Your task to perform on an android device: empty trash in google photos Image 0: 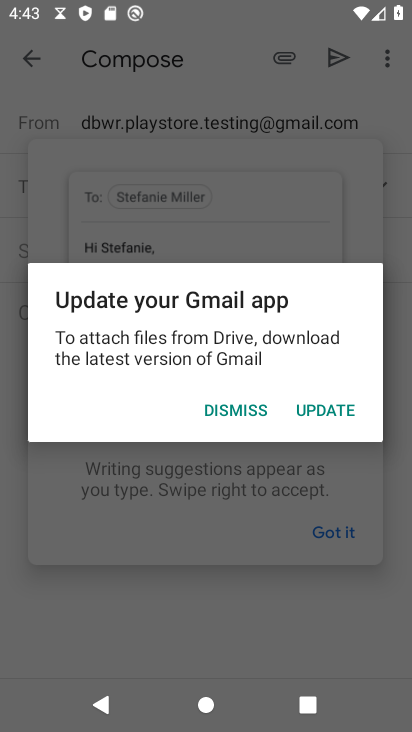
Step 0: press back button
Your task to perform on an android device: empty trash in google photos Image 1: 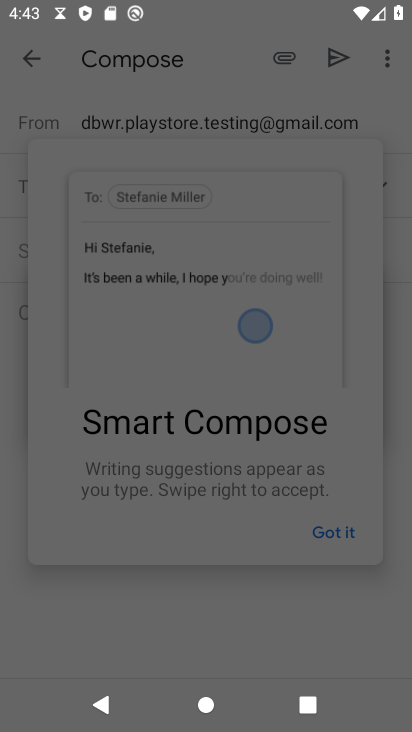
Step 1: press home button
Your task to perform on an android device: empty trash in google photos Image 2: 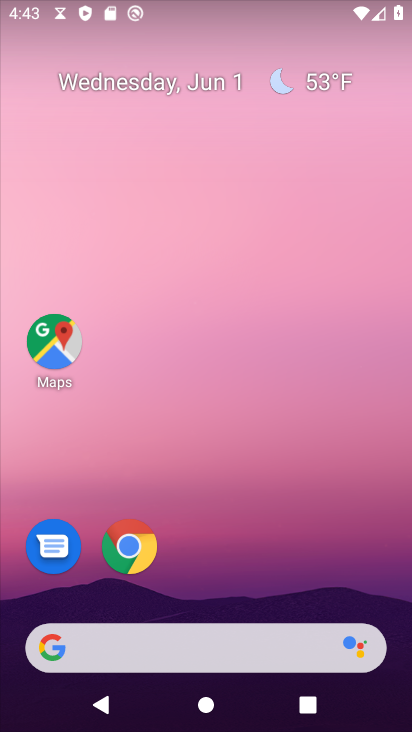
Step 2: drag from (241, 574) to (190, 25)
Your task to perform on an android device: empty trash in google photos Image 3: 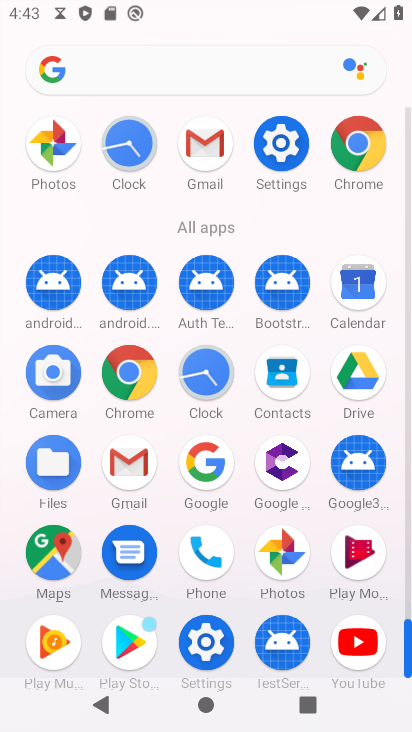
Step 3: drag from (0, 608) to (21, 241)
Your task to perform on an android device: empty trash in google photos Image 4: 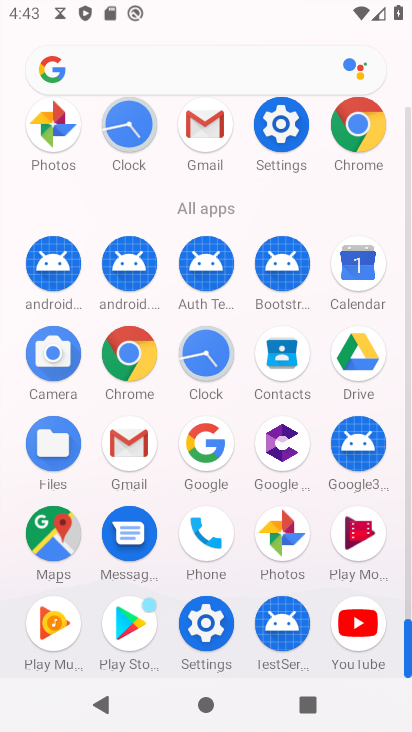
Step 4: click (281, 530)
Your task to perform on an android device: empty trash in google photos Image 5: 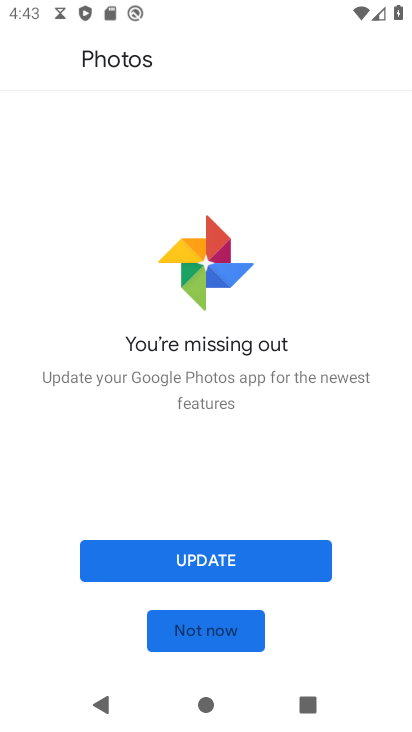
Step 5: click (245, 565)
Your task to perform on an android device: empty trash in google photos Image 6: 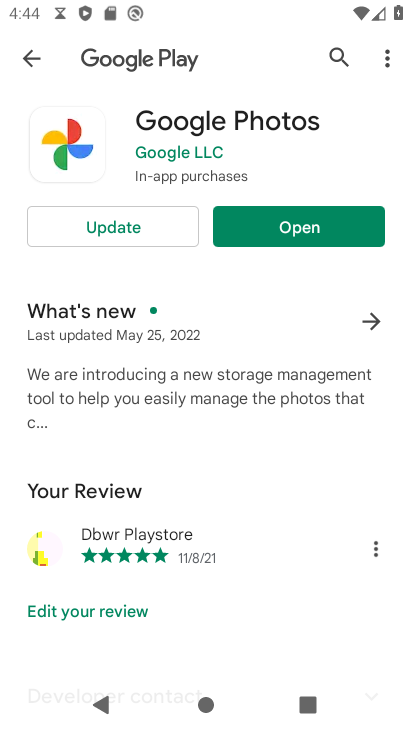
Step 6: click (166, 229)
Your task to perform on an android device: empty trash in google photos Image 7: 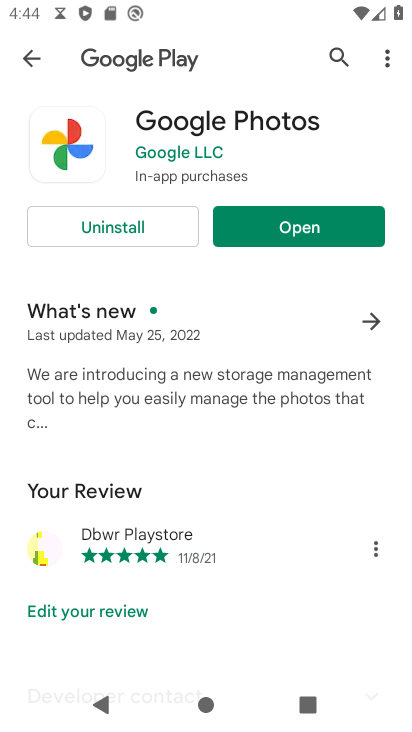
Step 7: click (282, 221)
Your task to perform on an android device: empty trash in google photos Image 8: 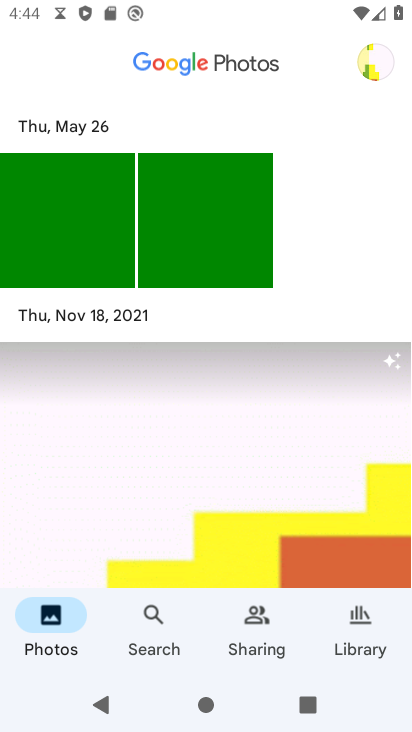
Step 8: drag from (230, 488) to (248, 208)
Your task to perform on an android device: empty trash in google photos Image 9: 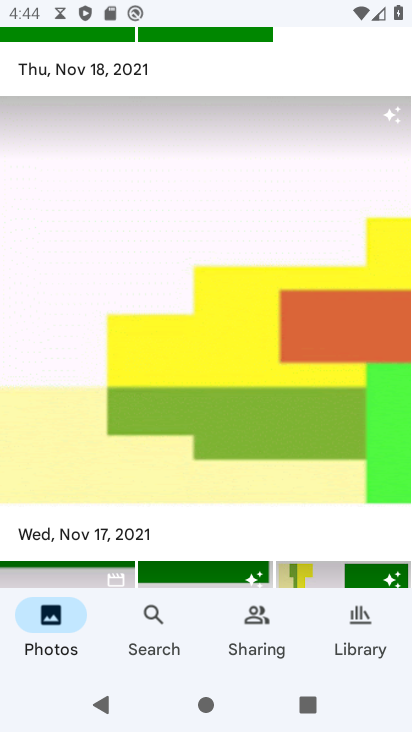
Step 9: click (259, 163)
Your task to perform on an android device: empty trash in google photos Image 10: 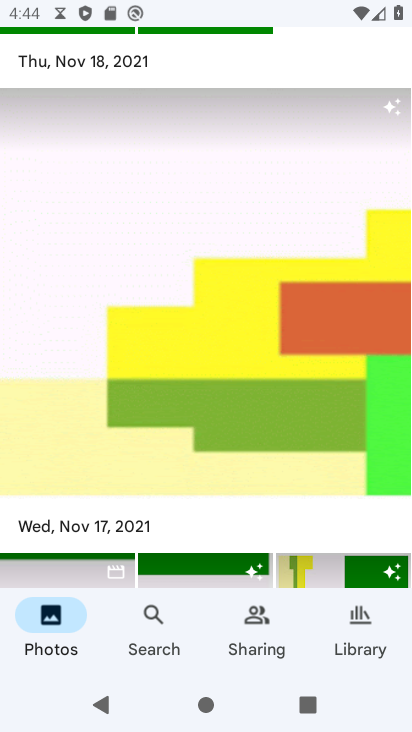
Step 10: drag from (222, 499) to (222, 146)
Your task to perform on an android device: empty trash in google photos Image 11: 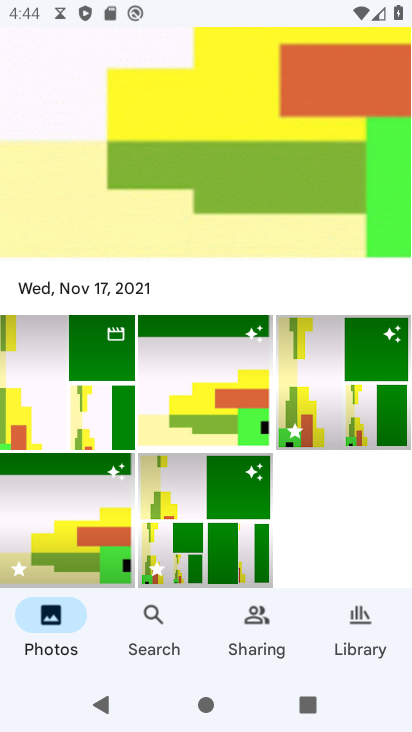
Step 11: drag from (184, 489) to (228, 147)
Your task to perform on an android device: empty trash in google photos Image 12: 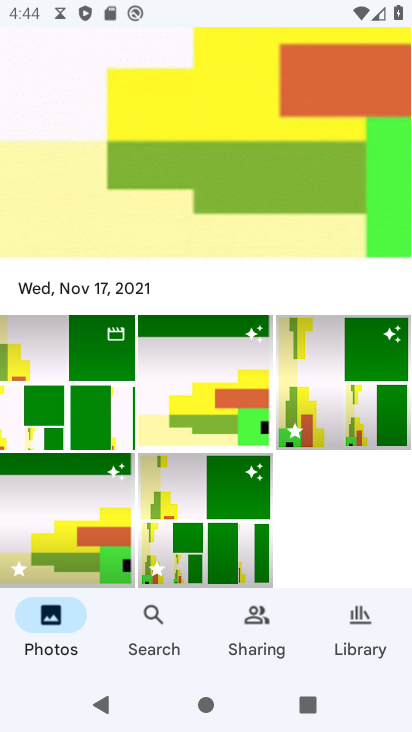
Step 12: drag from (213, 192) to (213, 532)
Your task to perform on an android device: empty trash in google photos Image 13: 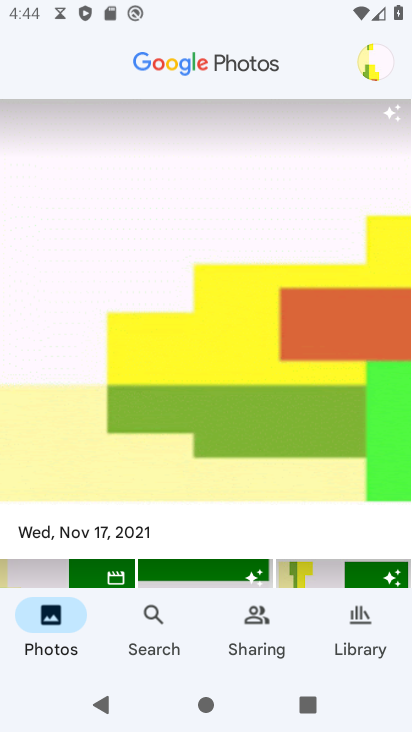
Step 13: drag from (205, 227) to (205, 498)
Your task to perform on an android device: empty trash in google photos Image 14: 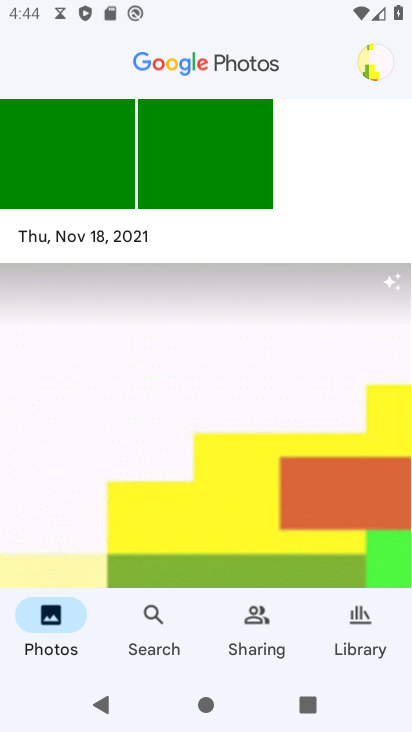
Step 14: click (360, 62)
Your task to perform on an android device: empty trash in google photos Image 15: 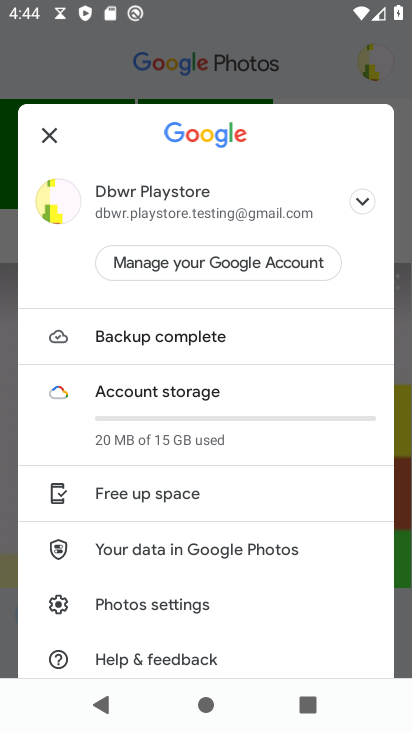
Step 15: click (172, 599)
Your task to perform on an android device: empty trash in google photos Image 16: 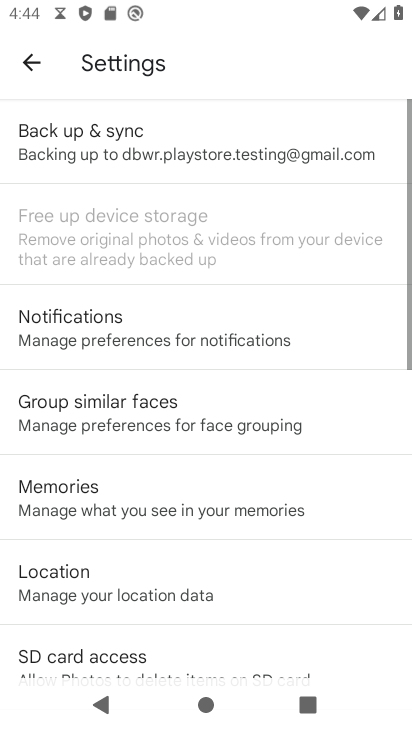
Step 16: drag from (188, 517) to (196, 125)
Your task to perform on an android device: empty trash in google photos Image 17: 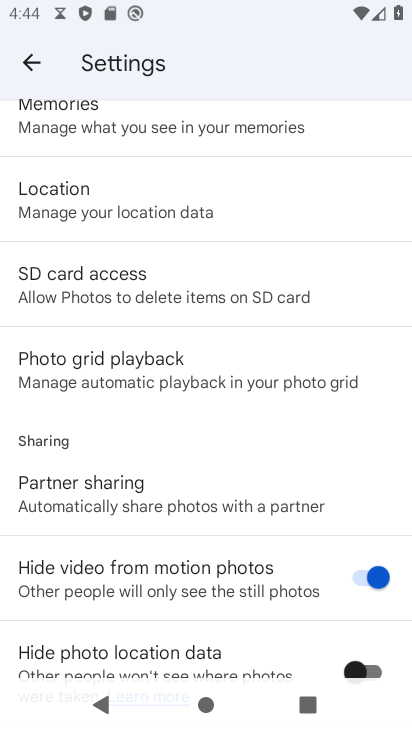
Step 17: drag from (156, 535) to (151, 134)
Your task to perform on an android device: empty trash in google photos Image 18: 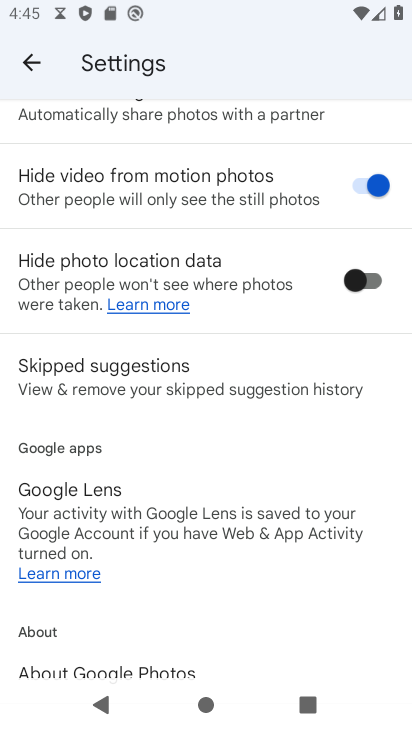
Step 18: drag from (168, 553) to (168, 135)
Your task to perform on an android device: empty trash in google photos Image 19: 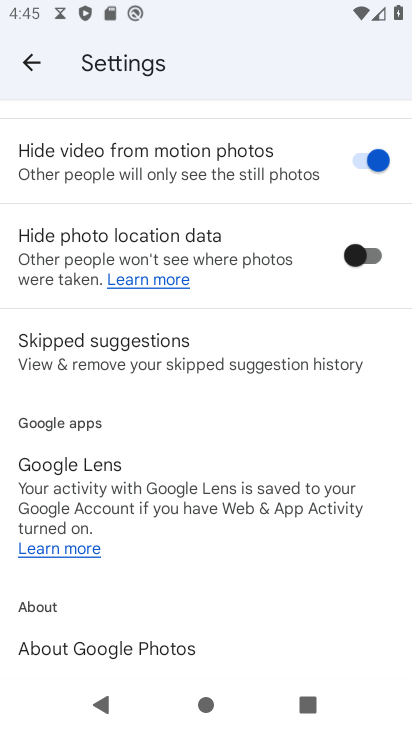
Step 19: drag from (190, 204) to (201, 613)
Your task to perform on an android device: empty trash in google photos Image 20: 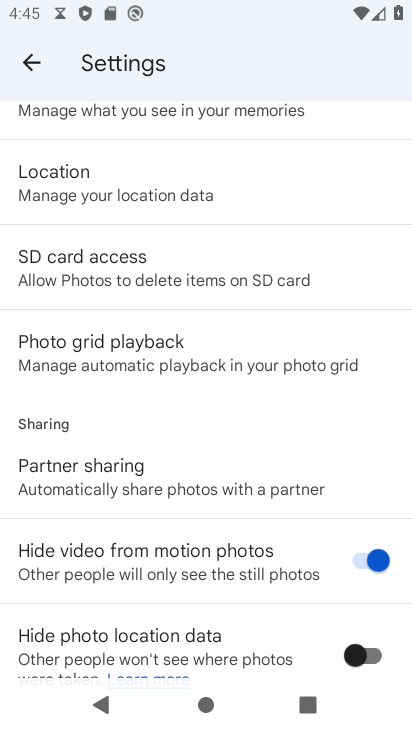
Step 20: drag from (201, 269) to (194, 567)
Your task to perform on an android device: empty trash in google photos Image 21: 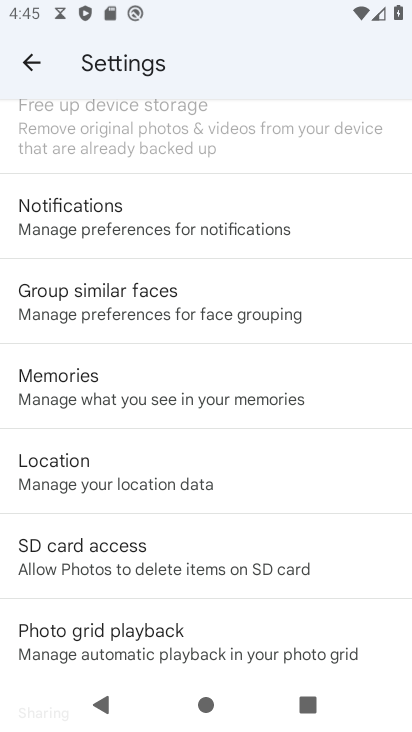
Step 21: drag from (184, 240) to (184, 600)
Your task to perform on an android device: empty trash in google photos Image 22: 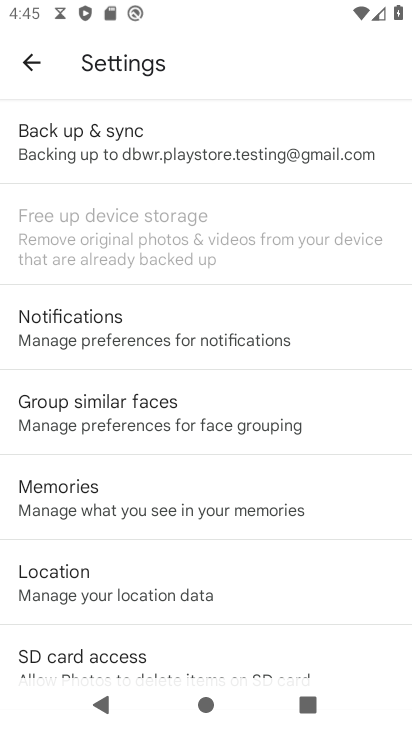
Step 22: click (161, 154)
Your task to perform on an android device: empty trash in google photos Image 23: 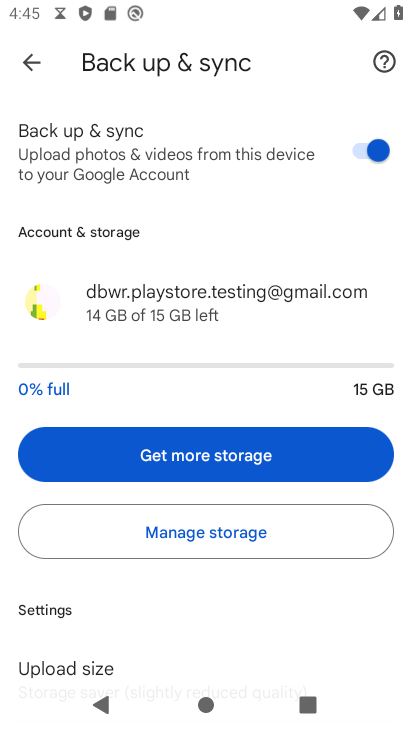
Step 23: drag from (180, 583) to (190, 141)
Your task to perform on an android device: empty trash in google photos Image 24: 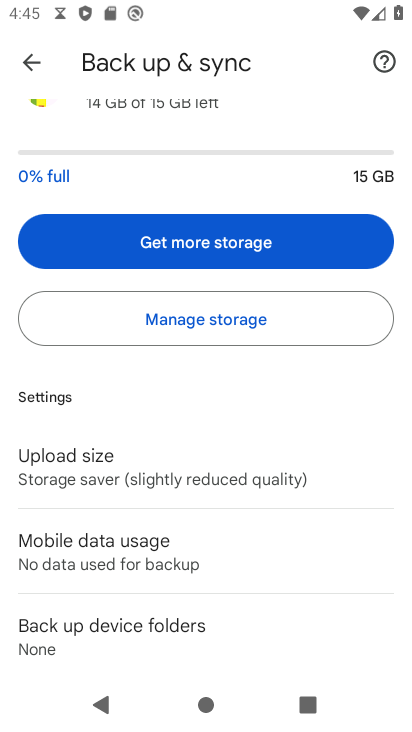
Step 24: drag from (206, 579) to (226, 92)
Your task to perform on an android device: empty trash in google photos Image 25: 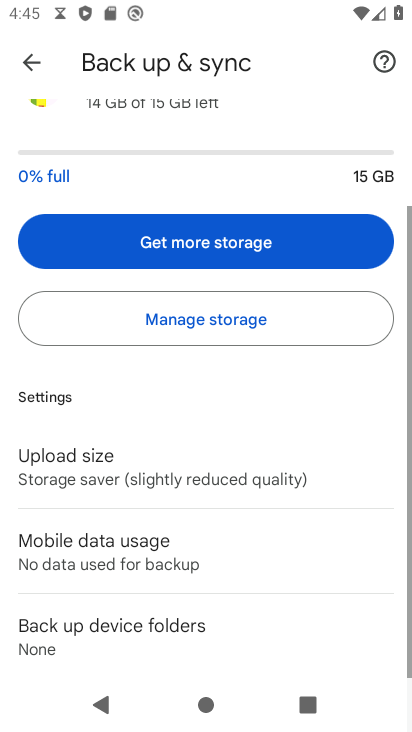
Step 25: drag from (212, 201) to (211, 633)
Your task to perform on an android device: empty trash in google photos Image 26: 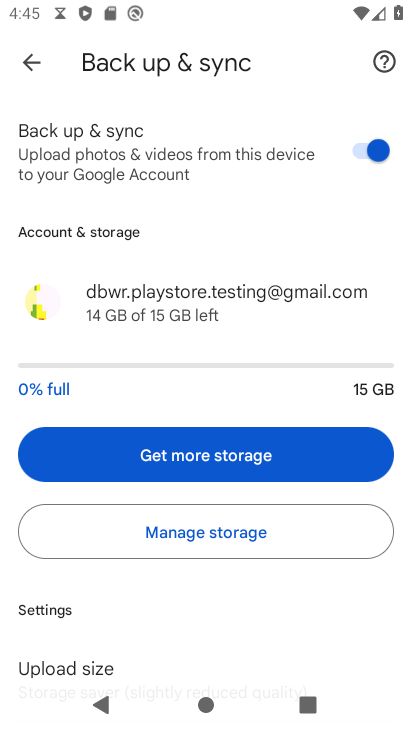
Step 26: drag from (199, 253) to (199, 631)
Your task to perform on an android device: empty trash in google photos Image 27: 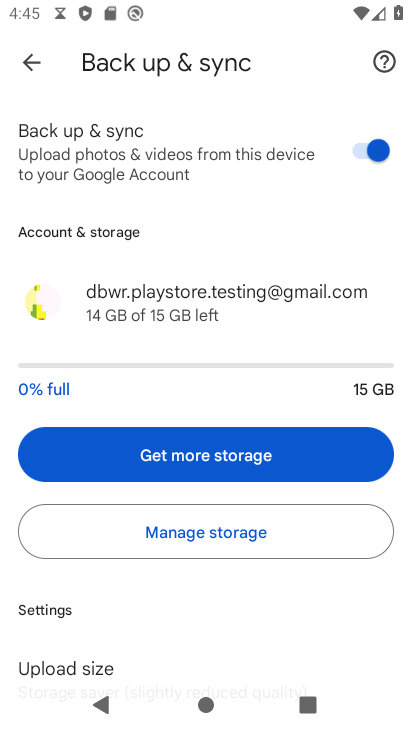
Step 27: drag from (147, 176) to (160, 413)
Your task to perform on an android device: empty trash in google photos Image 28: 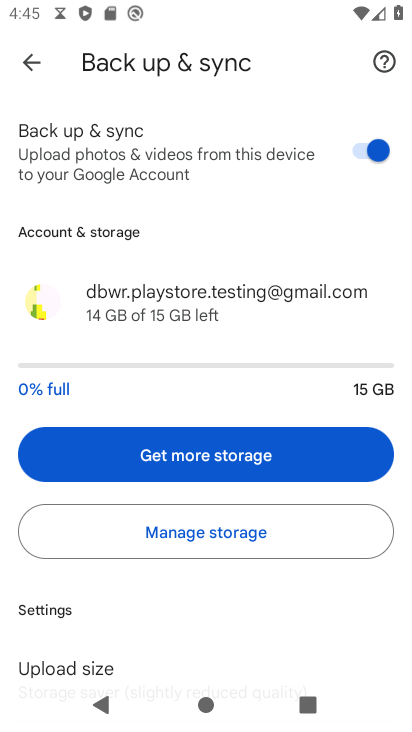
Step 28: drag from (191, 587) to (196, 127)
Your task to perform on an android device: empty trash in google photos Image 29: 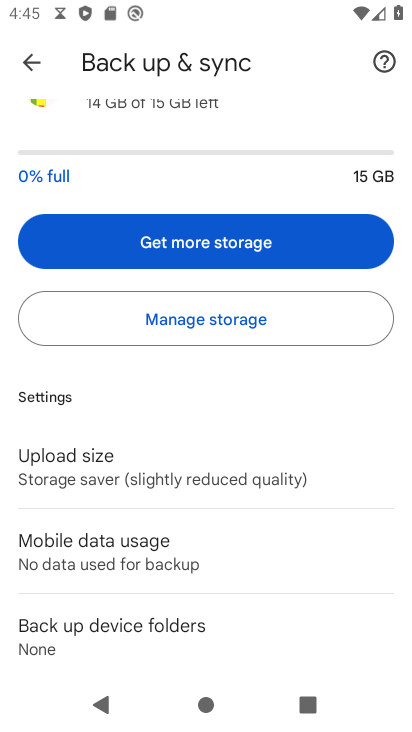
Step 29: drag from (204, 523) to (214, 167)
Your task to perform on an android device: empty trash in google photos Image 30: 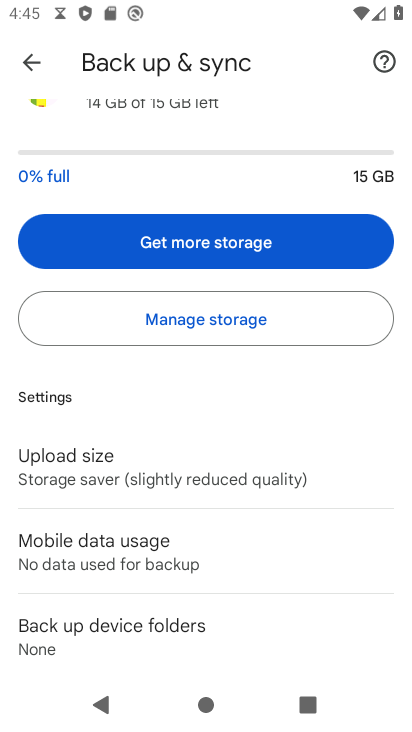
Step 30: click (32, 62)
Your task to perform on an android device: empty trash in google photos Image 31: 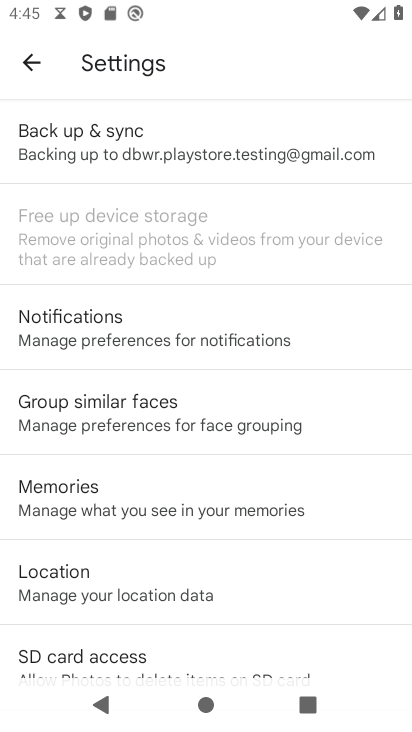
Step 31: drag from (213, 603) to (215, 123)
Your task to perform on an android device: empty trash in google photos Image 32: 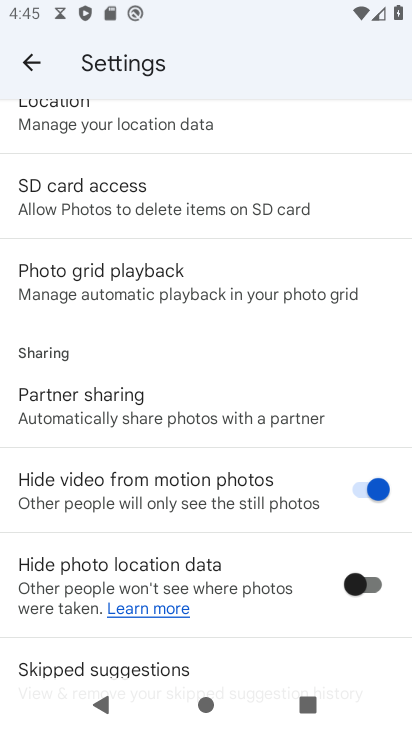
Step 32: drag from (221, 123) to (240, 641)
Your task to perform on an android device: empty trash in google photos Image 33: 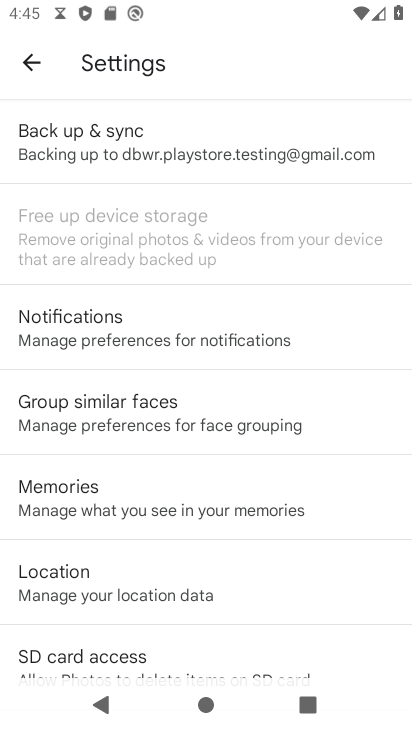
Step 33: click (193, 150)
Your task to perform on an android device: empty trash in google photos Image 34: 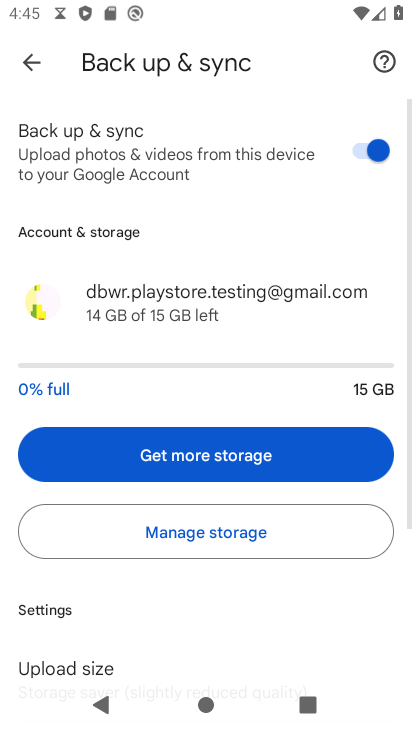
Step 34: drag from (218, 472) to (209, 108)
Your task to perform on an android device: empty trash in google photos Image 35: 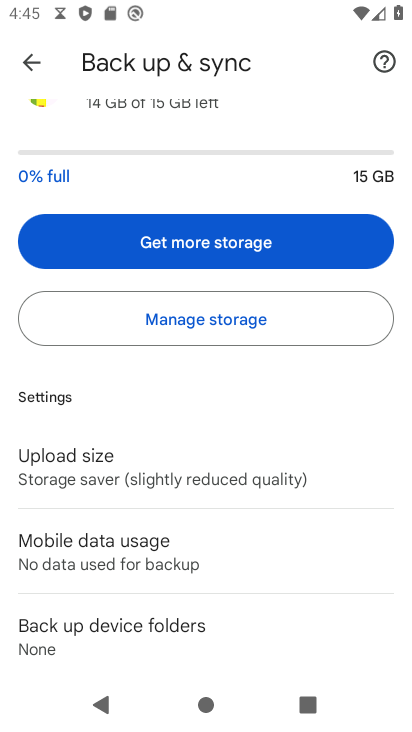
Step 35: click (12, 55)
Your task to perform on an android device: empty trash in google photos Image 36: 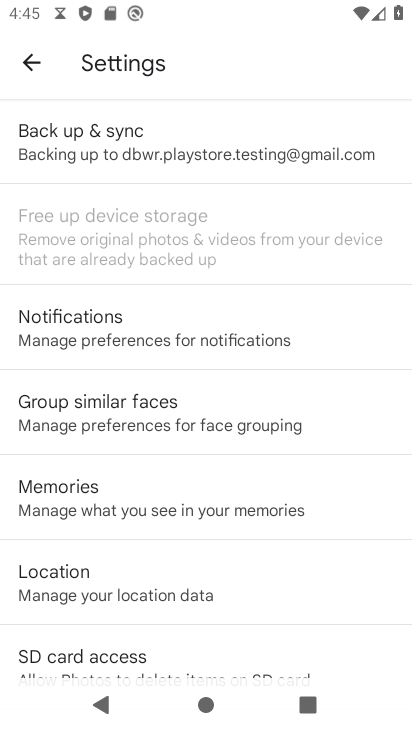
Step 36: click (43, 64)
Your task to perform on an android device: empty trash in google photos Image 37: 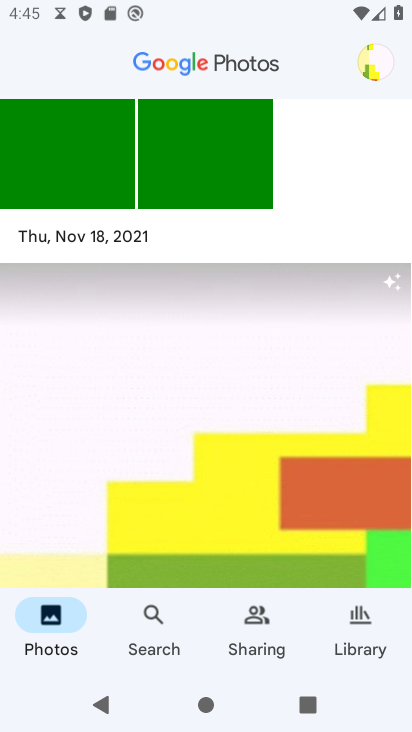
Step 37: click (367, 644)
Your task to perform on an android device: empty trash in google photos Image 38: 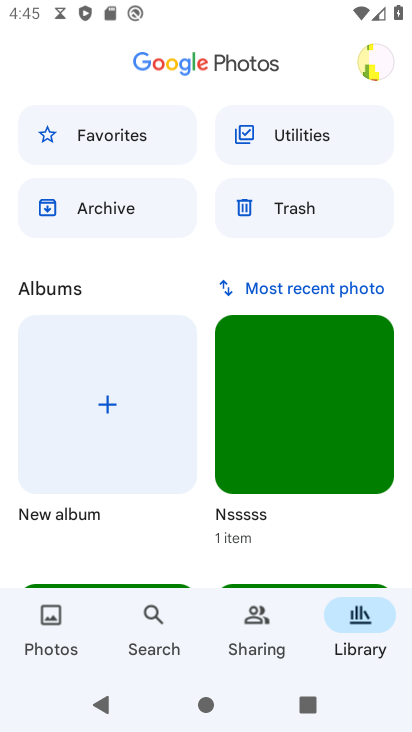
Step 38: click (262, 215)
Your task to perform on an android device: empty trash in google photos Image 39: 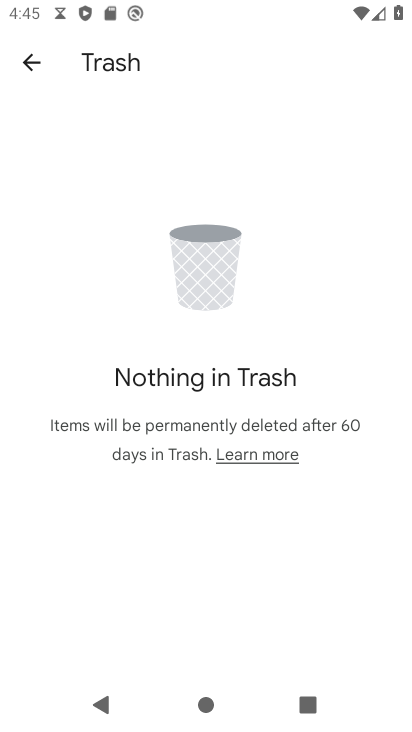
Step 39: task complete